Your task to perform on an android device: Open my contact list Image 0: 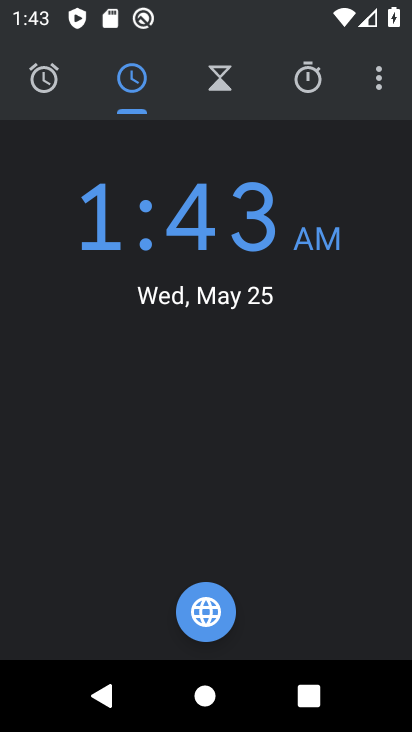
Step 0: press home button
Your task to perform on an android device: Open my contact list Image 1: 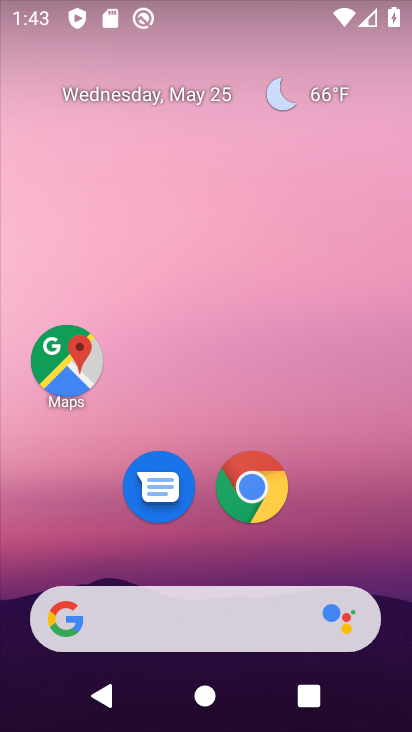
Step 1: drag from (181, 573) to (186, 13)
Your task to perform on an android device: Open my contact list Image 2: 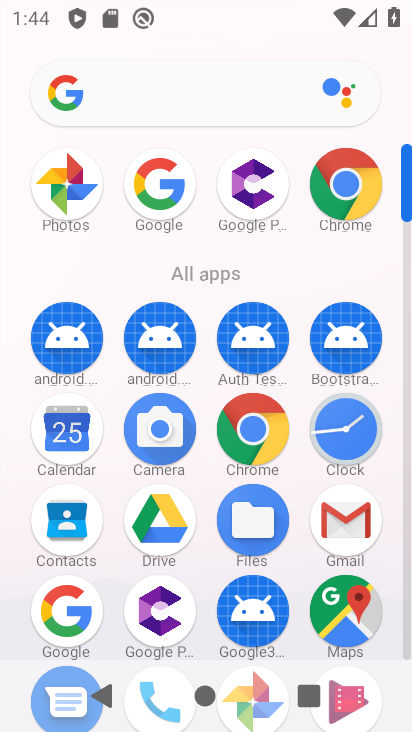
Step 2: drag from (268, 609) to (234, 262)
Your task to perform on an android device: Open my contact list Image 3: 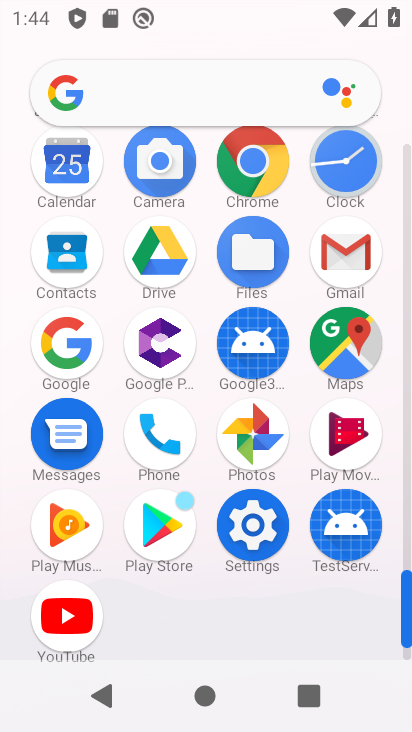
Step 3: click (67, 268)
Your task to perform on an android device: Open my contact list Image 4: 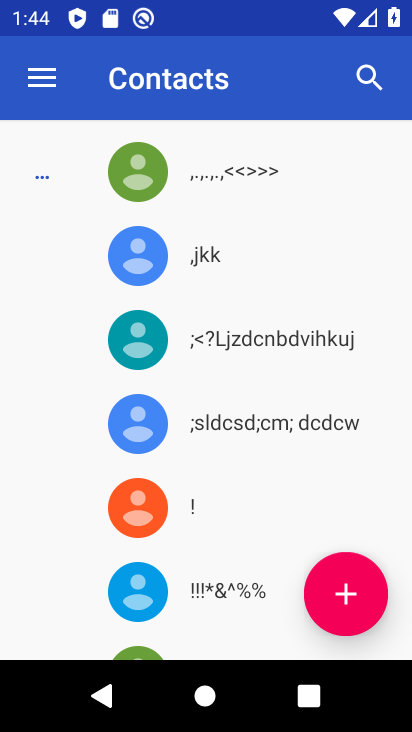
Step 4: task complete